Your task to perform on an android device: remove spam from my inbox in the gmail app Image 0: 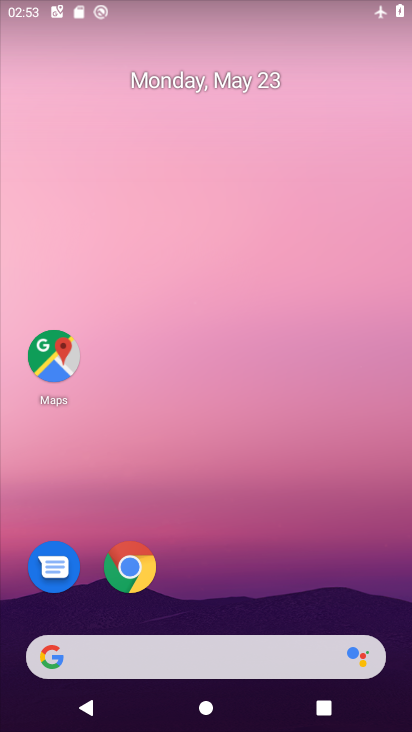
Step 0: drag from (278, 515) to (318, 187)
Your task to perform on an android device: remove spam from my inbox in the gmail app Image 1: 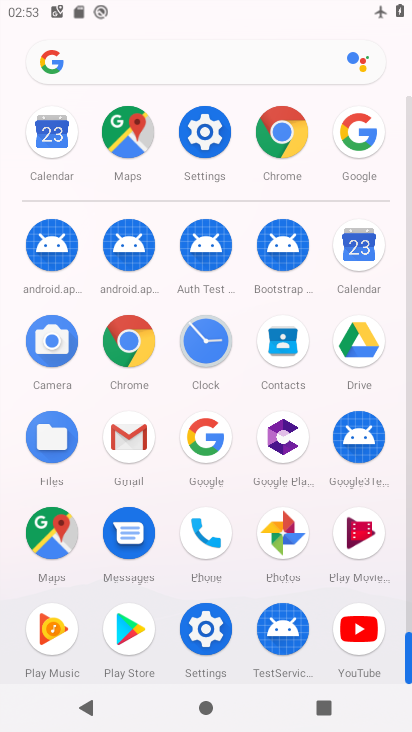
Step 1: click (131, 443)
Your task to perform on an android device: remove spam from my inbox in the gmail app Image 2: 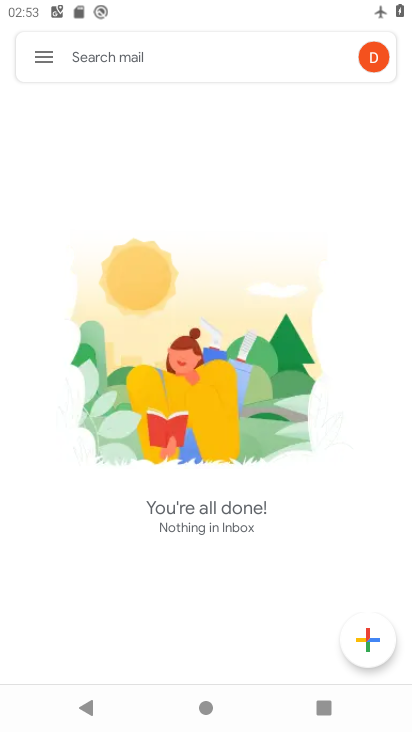
Step 2: click (43, 59)
Your task to perform on an android device: remove spam from my inbox in the gmail app Image 3: 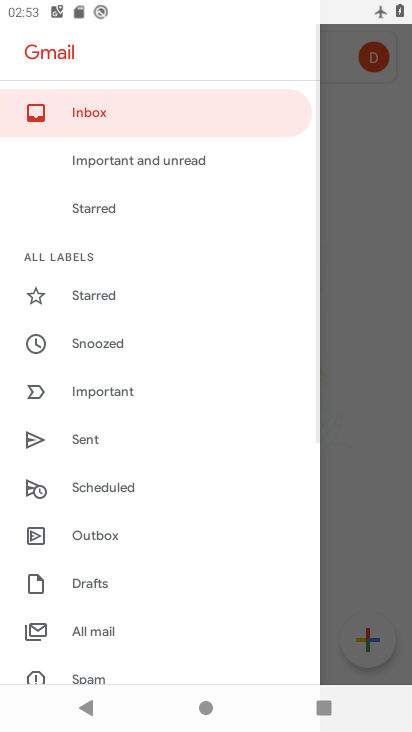
Step 3: drag from (124, 590) to (165, 410)
Your task to perform on an android device: remove spam from my inbox in the gmail app Image 4: 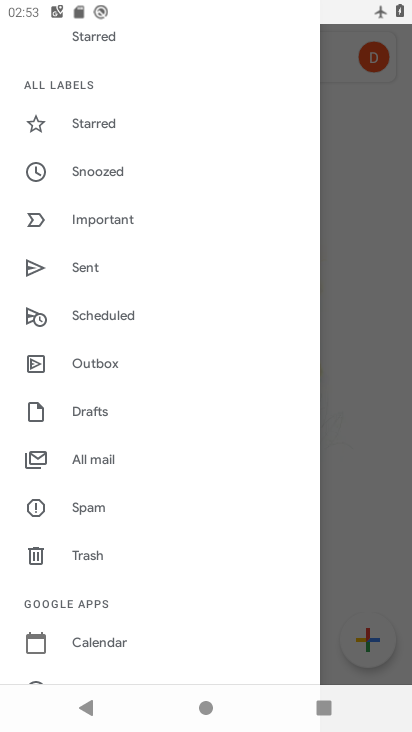
Step 4: click (134, 515)
Your task to perform on an android device: remove spam from my inbox in the gmail app Image 5: 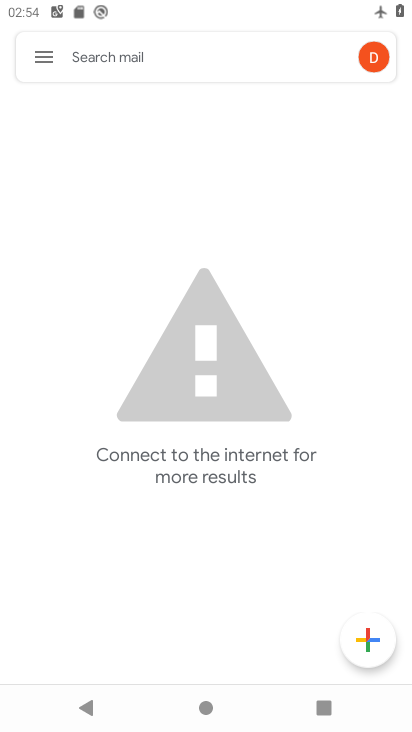
Step 5: task complete